Your task to perform on an android device: Open ESPN.com Image 0: 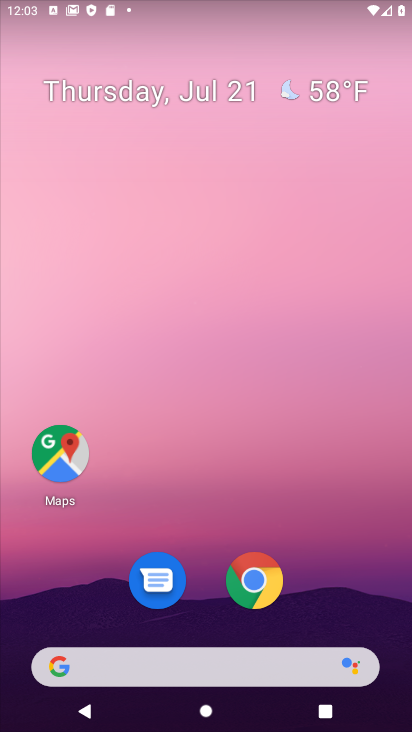
Step 0: drag from (268, 575) to (225, 56)
Your task to perform on an android device: Open ESPN.com Image 1: 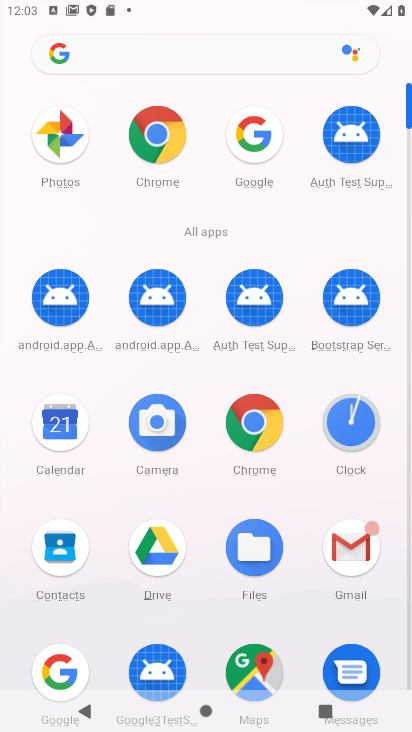
Step 1: click (134, 106)
Your task to perform on an android device: Open ESPN.com Image 2: 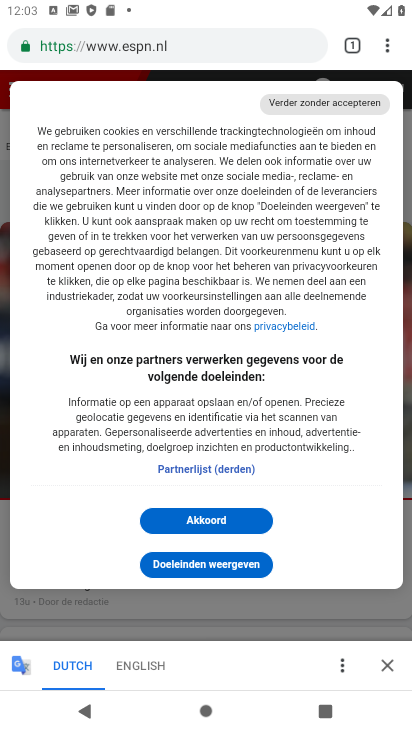
Step 2: task complete